Your task to perform on an android device: turn on showing notifications on the lock screen Image 0: 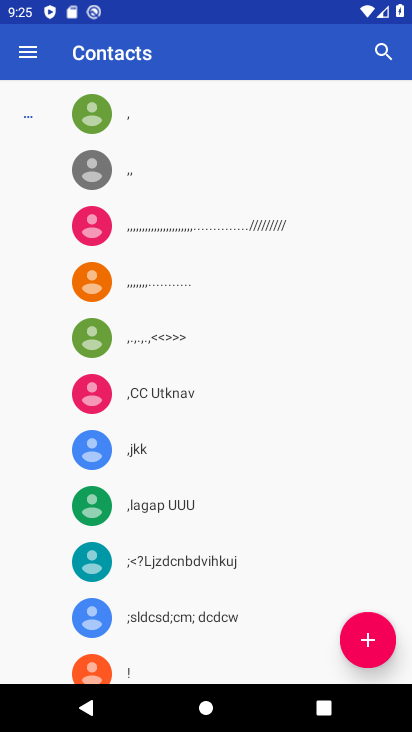
Step 0: press home button
Your task to perform on an android device: turn on showing notifications on the lock screen Image 1: 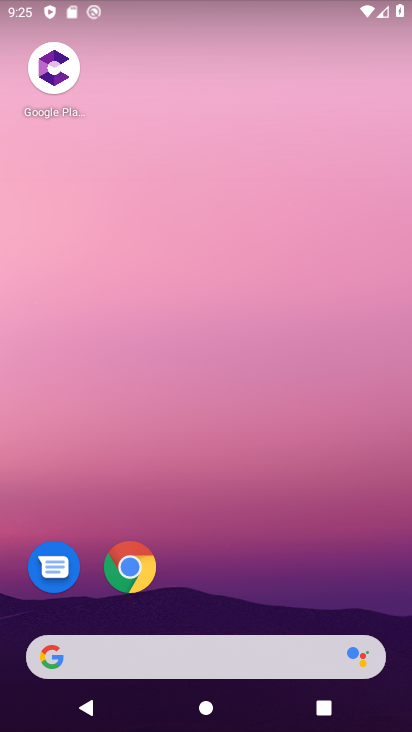
Step 1: drag from (245, 572) to (217, 19)
Your task to perform on an android device: turn on showing notifications on the lock screen Image 2: 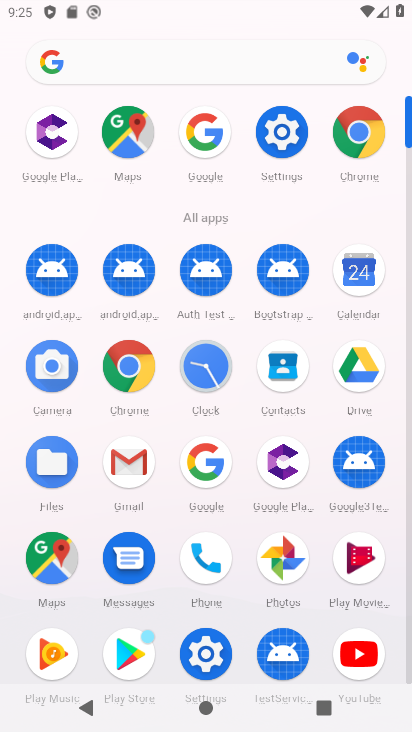
Step 2: click (202, 656)
Your task to perform on an android device: turn on showing notifications on the lock screen Image 3: 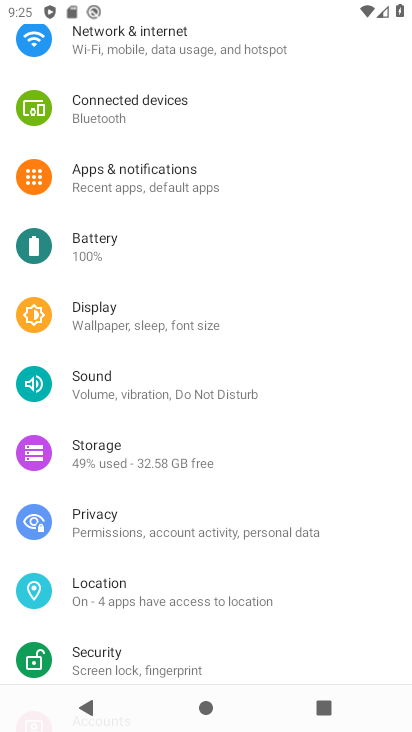
Step 3: click (197, 169)
Your task to perform on an android device: turn on showing notifications on the lock screen Image 4: 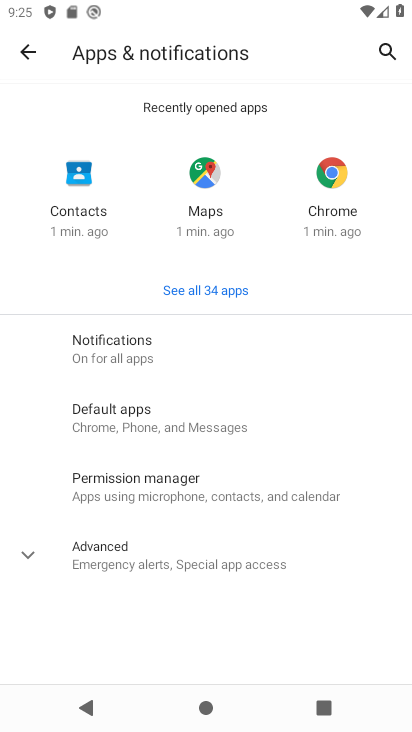
Step 4: click (185, 353)
Your task to perform on an android device: turn on showing notifications on the lock screen Image 5: 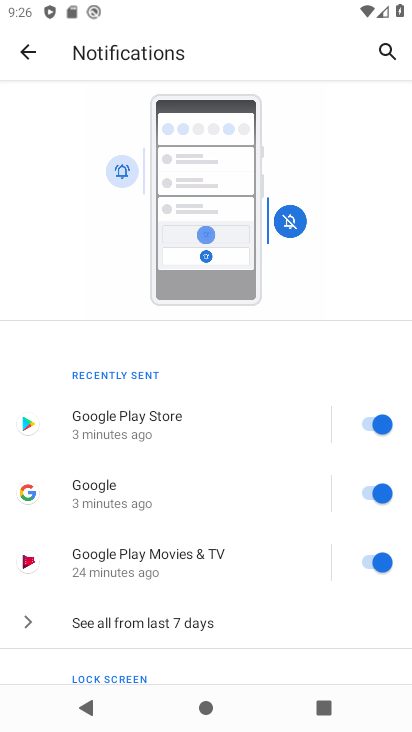
Step 5: drag from (246, 601) to (227, 214)
Your task to perform on an android device: turn on showing notifications on the lock screen Image 6: 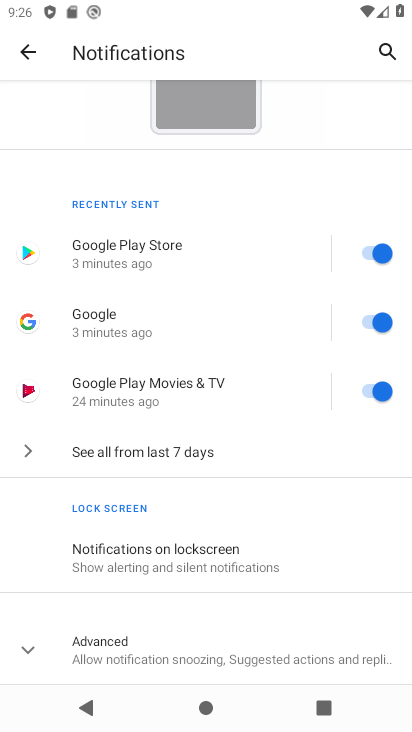
Step 6: click (161, 547)
Your task to perform on an android device: turn on showing notifications on the lock screen Image 7: 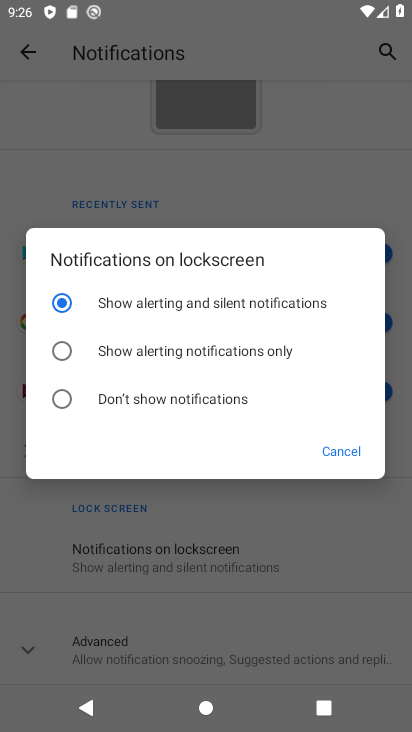
Step 7: task complete